Your task to perform on an android device: Go to network settings Image 0: 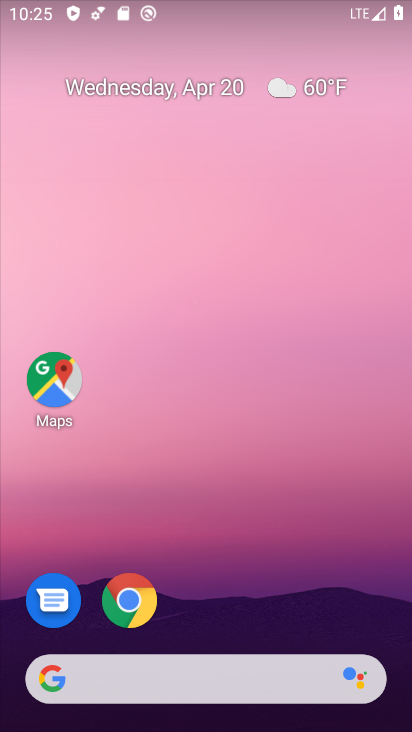
Step 0: drag from (320, 555) to (306, 88)
Your task to perform on an android device: Go to network settings Image 1: 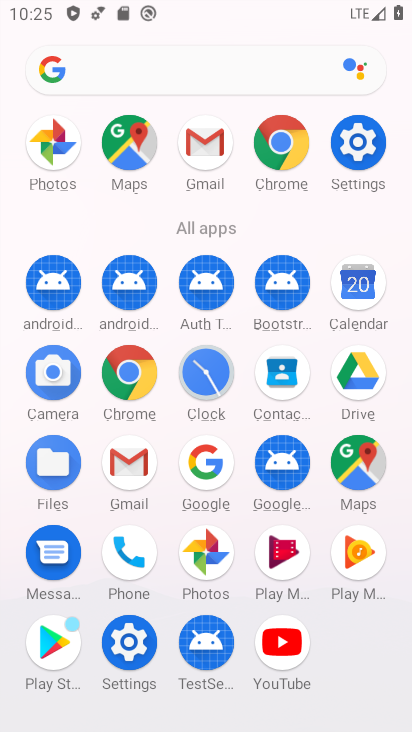
Step 1: click (360, 153)
Your task to perform on an android device: Go to network settings Image 2: 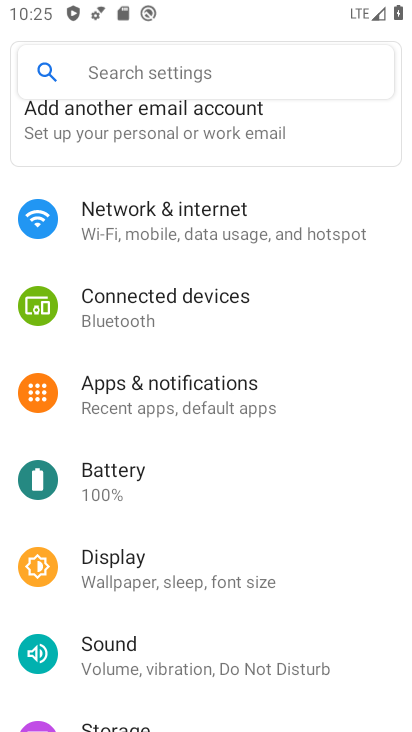
Step 2: click (276, 227)
Your task to perform on an android device: Go to network settings Image 3: 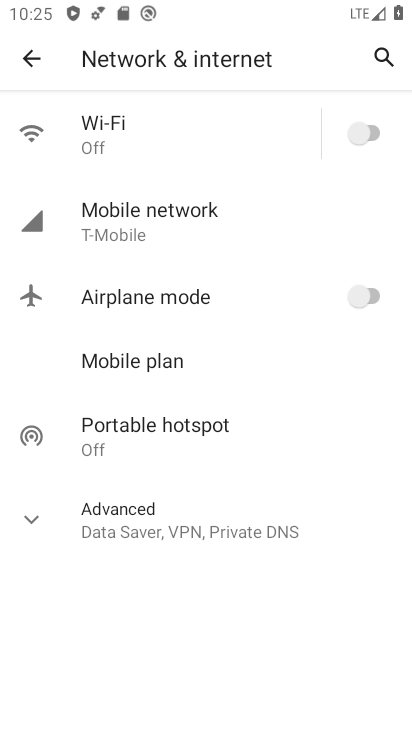
Step 3: task complete